Your task to perform on an android device: turn on wifi Image 0: 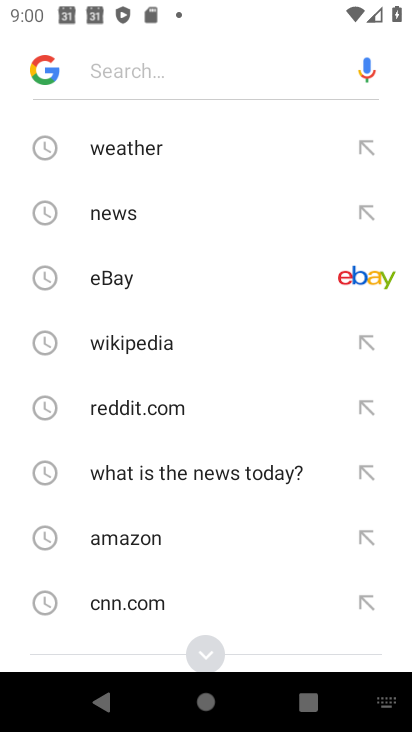
Step 0: press home button
Your task to perform on an android device: turn on wifi Image 1: 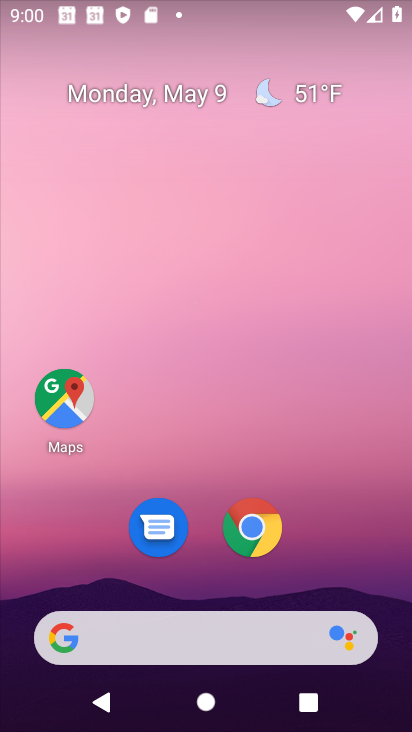
Step 1: drag from (222, 577) to (285, 58)
Your task to perform on an android device: turn on wifi Image 2: 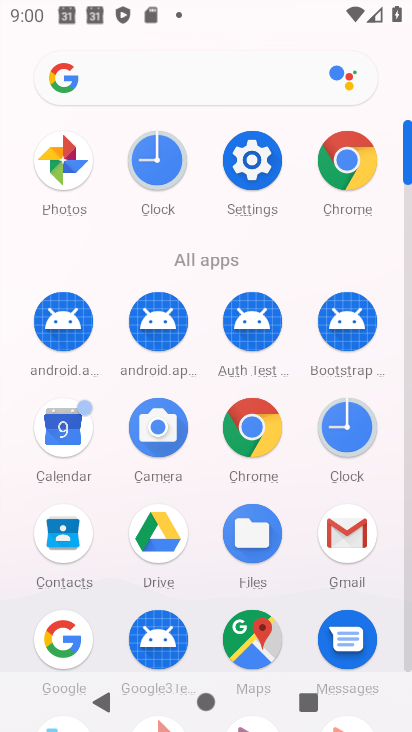
Step 2: click (260, 187)
Your task to perform on an android device: turn on wifi Image 3: 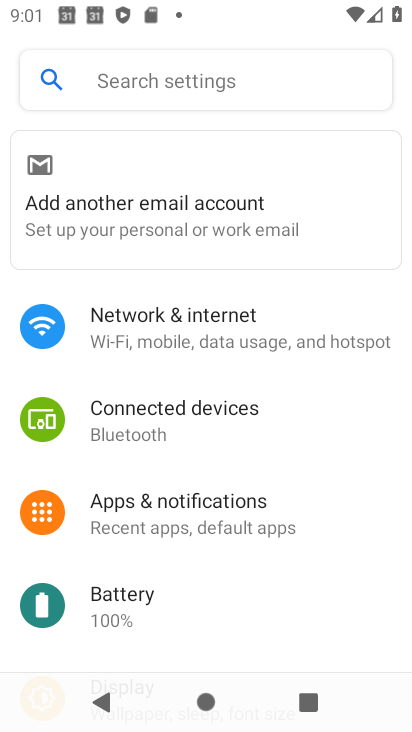
Step 3: click (264, 318)
Your task to perform on an android device: turn on wifi Image 4: 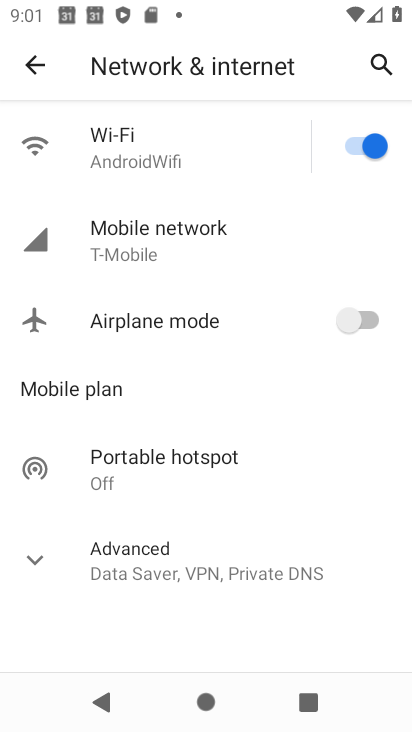
Step 4: task complete